Your task to perform on an android device: set an alarm Image 0: 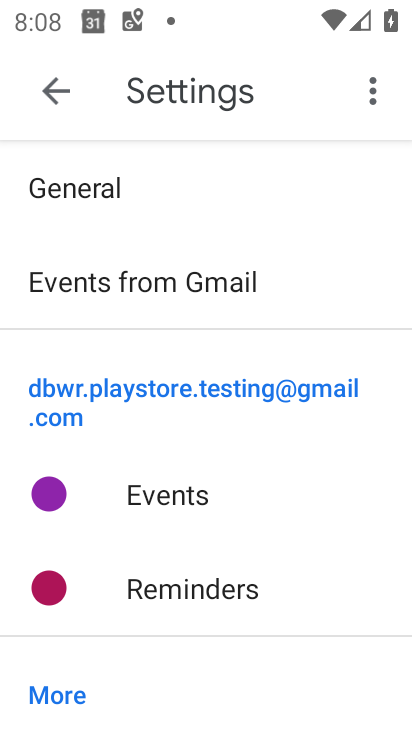
Step 0: task complete